Your task to perform on an android device: delete a single message in the gmail app Image 0: 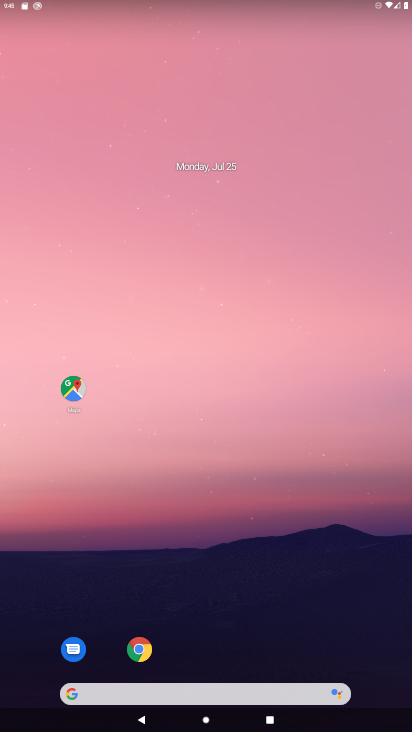
Step 0: drag from (207, 554) to (211, 17)
Your task to perform on an android device: delete a single message in the gmail app Image 1: 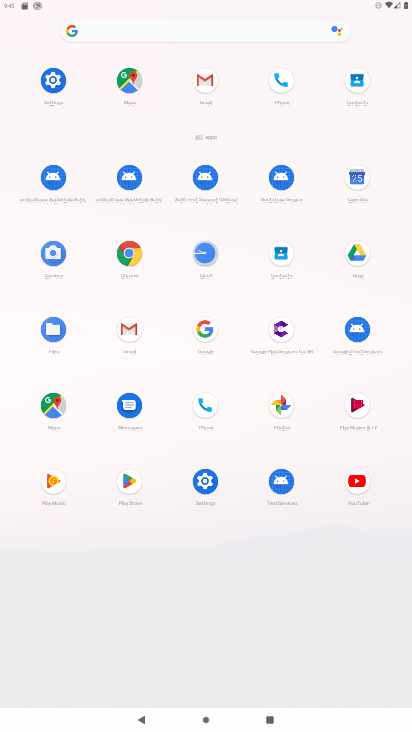
Step 1: click (134, 332)
Your task to perform on an android device: delete a single message in the gmail app Image 2: 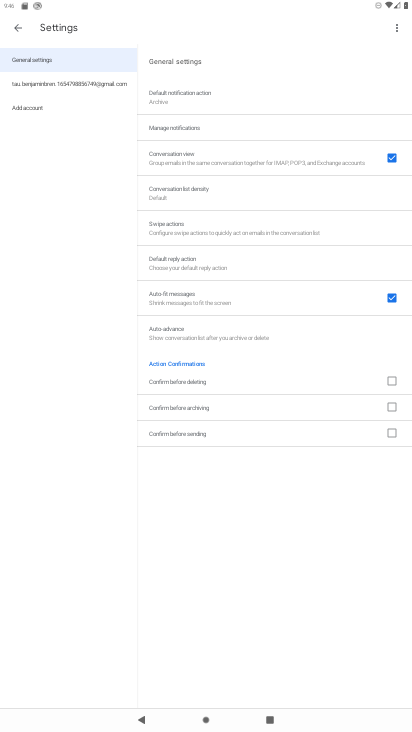
Step 2: click (17, 32)
Your task to perform on an android device: delete a single message in the gmail app Image 3: 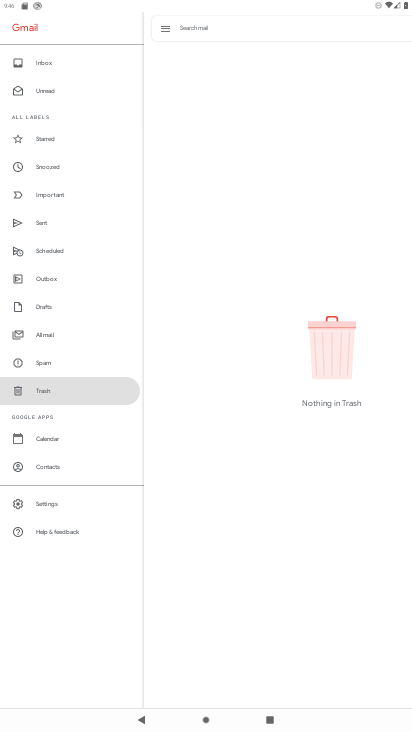
Step 3: click (43, 57)
Your task to perform on an android device: delete a single message in the gmail app Image 4: 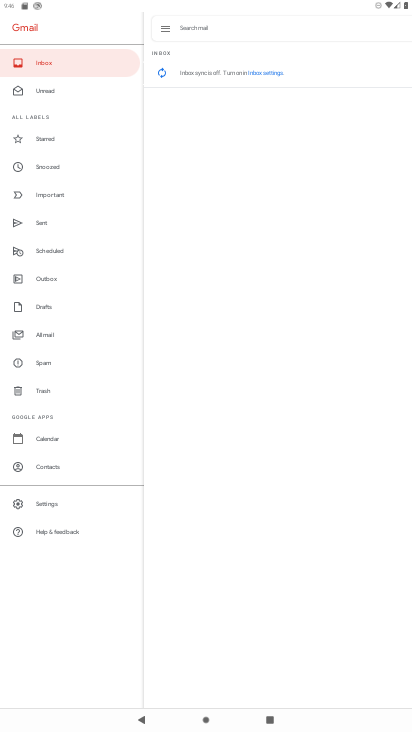
Step 4: task complete